Your task to perform on an android device: toggle notifications settings in the gmail app Image 0: 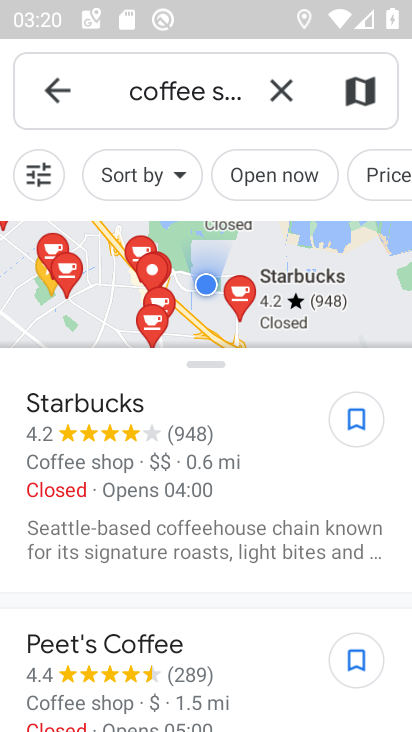
Step 0: press home button
Your task to perform on an android device: toggle notifications settings in the gmail app Image 1: 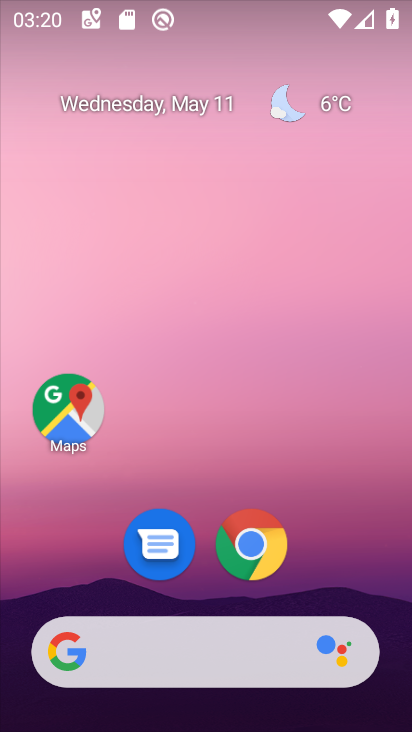
Step 1: drag from (320, 598) to (322, 151)
Your task to perform on an android device: toggle notifications settings in the gmail app Image 2: 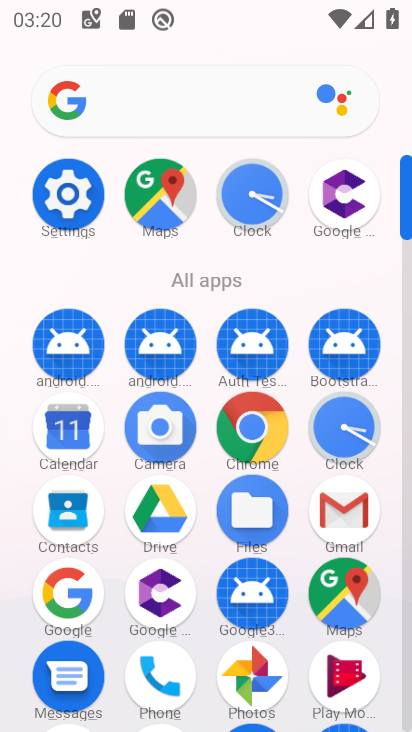
Step 2: click (345, 494)
Your task to perform on an android device: toggle notifications settings in the gmail app Image 3: 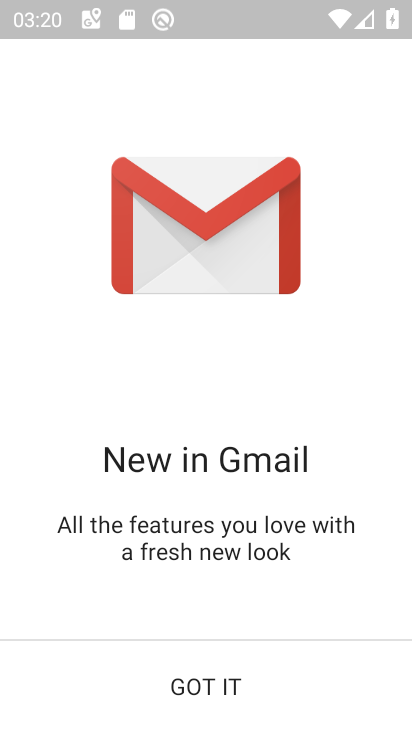
Step 3: click (187, 694)
Your task to perform on an android device: toggle notifications settings in the gmail app Image 4: 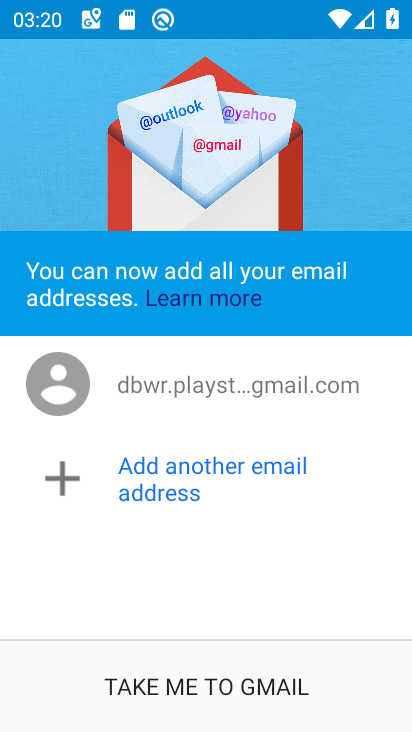
Step 4: click (189, 688)
Your task to perform on an android device: toggle notifications settings in the gmail app Image 5: 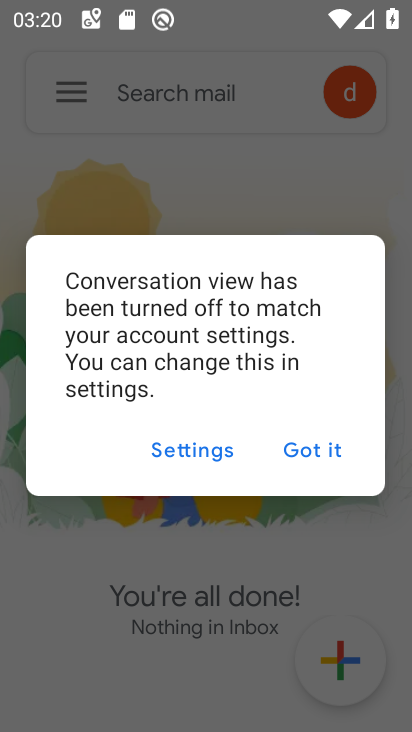
Step 5: click (316, 454)
Your task to perform on an android device: toggle notifications settings in the gmail app Image 6: 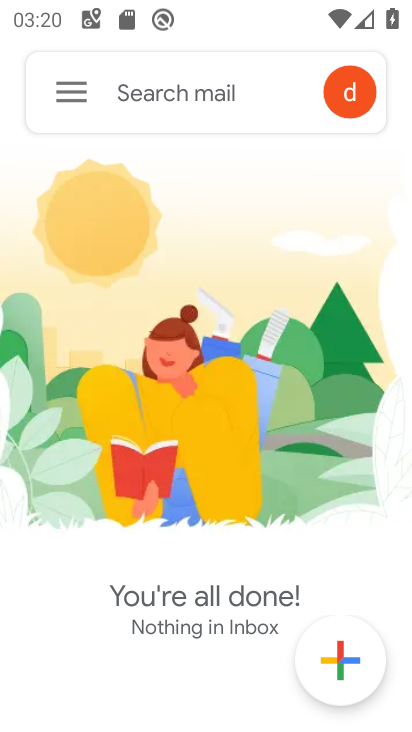
Step 6: click (69, 101)
Your task to perform on an android device: toggle notifications settings in the gmail app Image 7: 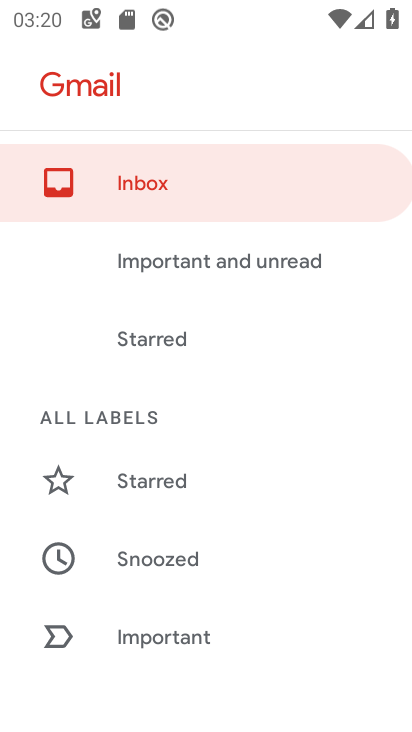
Step 7: drag from (208, 654) to (202, 355)
Your task to perform on an android device: toggle notifications settings in the gmail app Image 8: 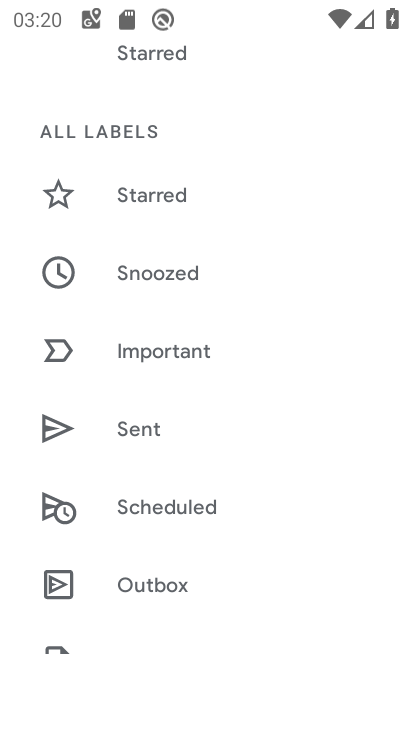
Step 8: drag from (196, 623) to (196, 349)
Your task to perform on an android device: toggle notifications settings in the gmail app Image 9: 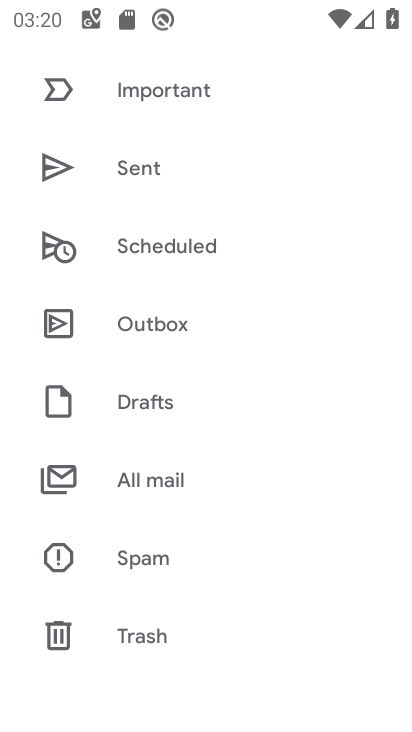
Step 9: drag from (195, 639) to (192, 374)
Your task to perform on an android device: toggle notifications settings in the gmail app Image 10: 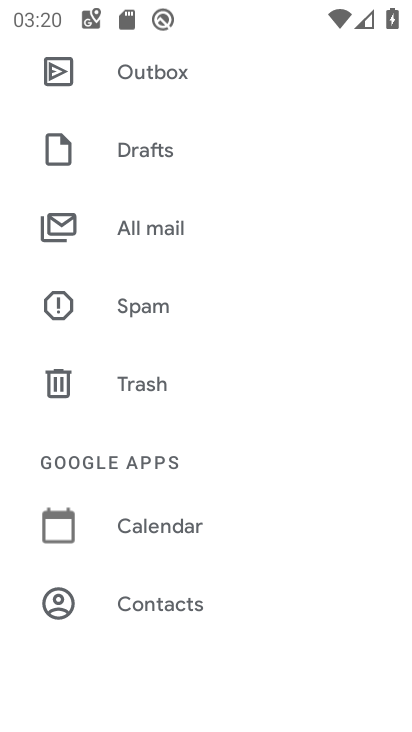
Step 10: drag from (202, 576) to (194, 345)
Your task to perform on an android device: toggle notifications settings in the gmail app Image 11: 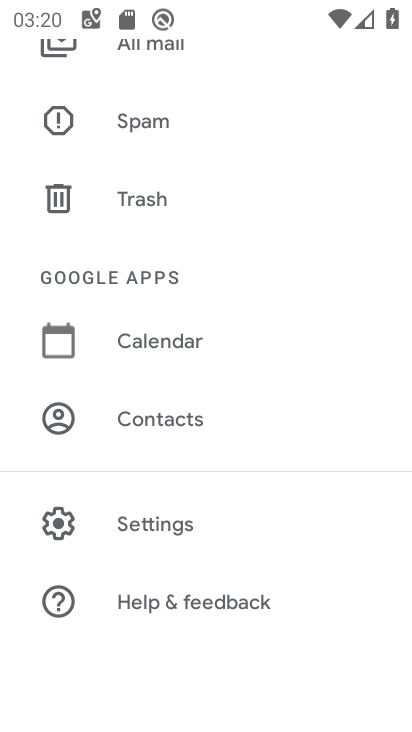
Step 11: click (179, 514)
Your task to perform on an android device: toggle notifications settings in the gmail app Image 12: 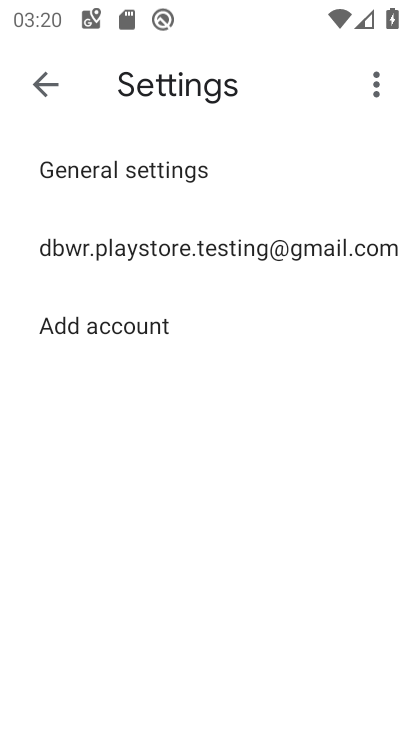
Step 12: click (156, 236)
Your task to perform on an android device: toggle notifications settings in the gmail app Image 13: 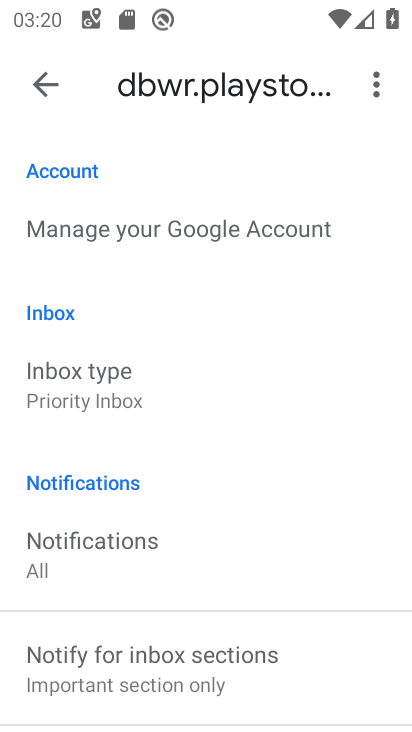
Step 13: drag from (144, 617) to (154, 216)
Your task to perform on an android device: toggle notifications settings in the gmail app Image 14: 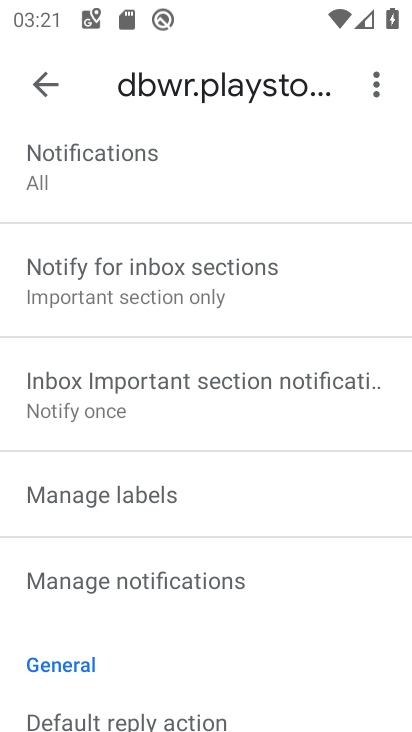
Step 14: click (186, 579)
Your task to perform on an android device: toggle notifications settings in the gmail app Image 15: 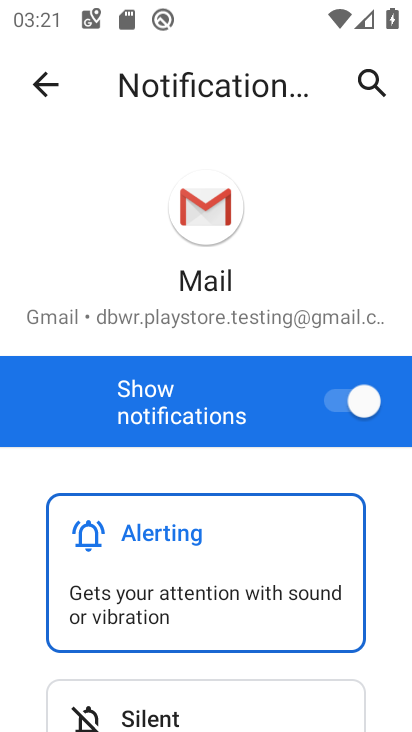
Step 15: click (363, 406)
Your task to perform on an android device: toggle notifications settings in the gmail app Image 16: 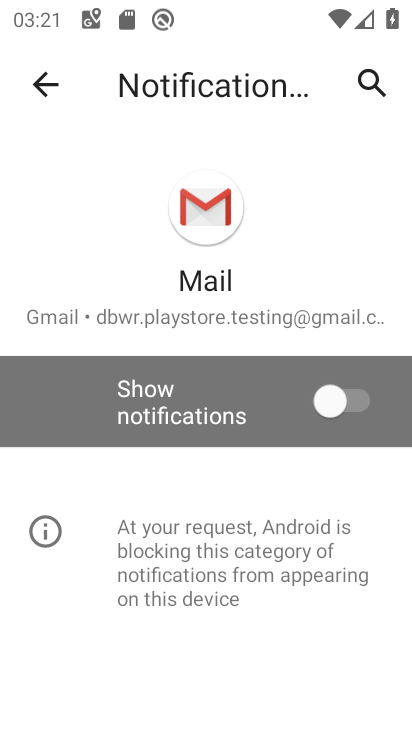
Step 16: task complete